Your task to perform on an android device: Open the map Image 0: 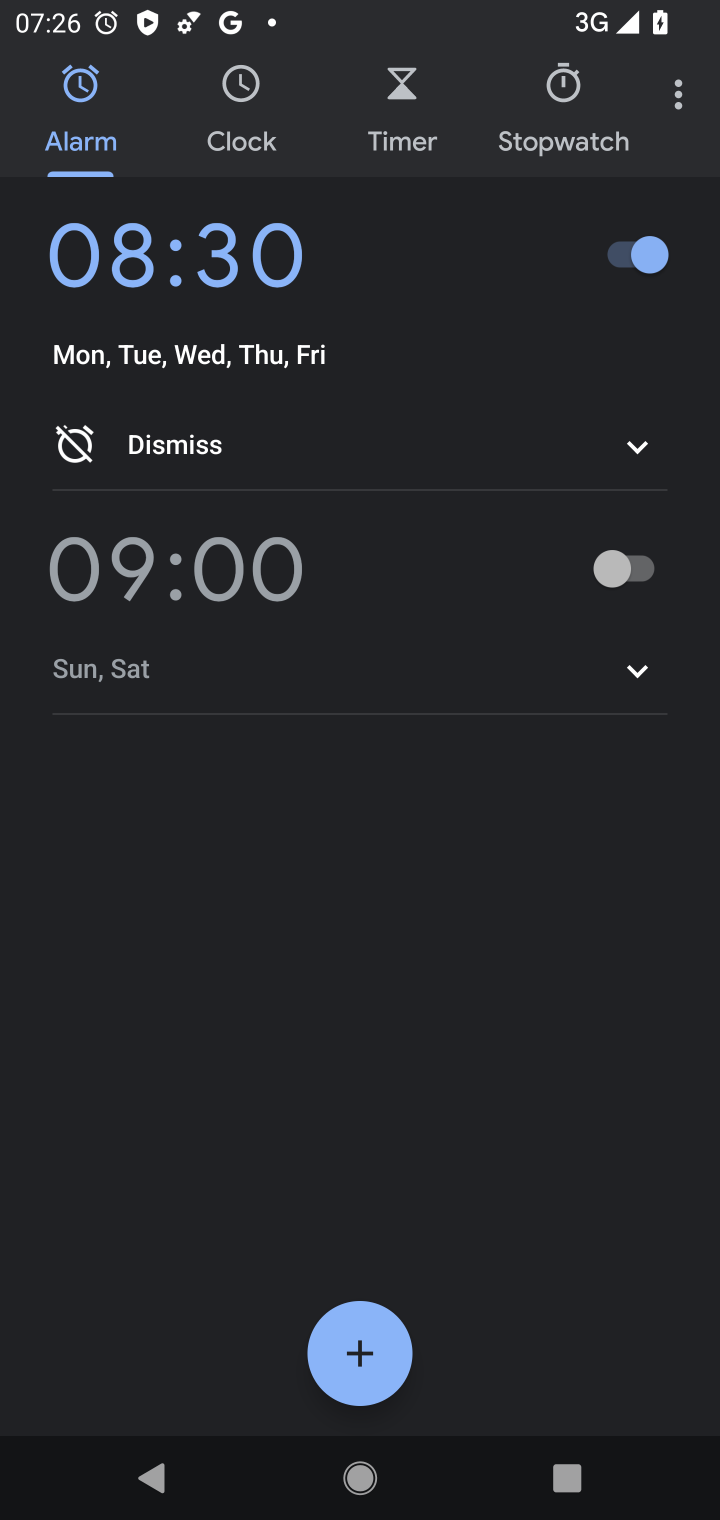
Step 0: press home button
Your task to perform on an android device: Open the map Image 1: 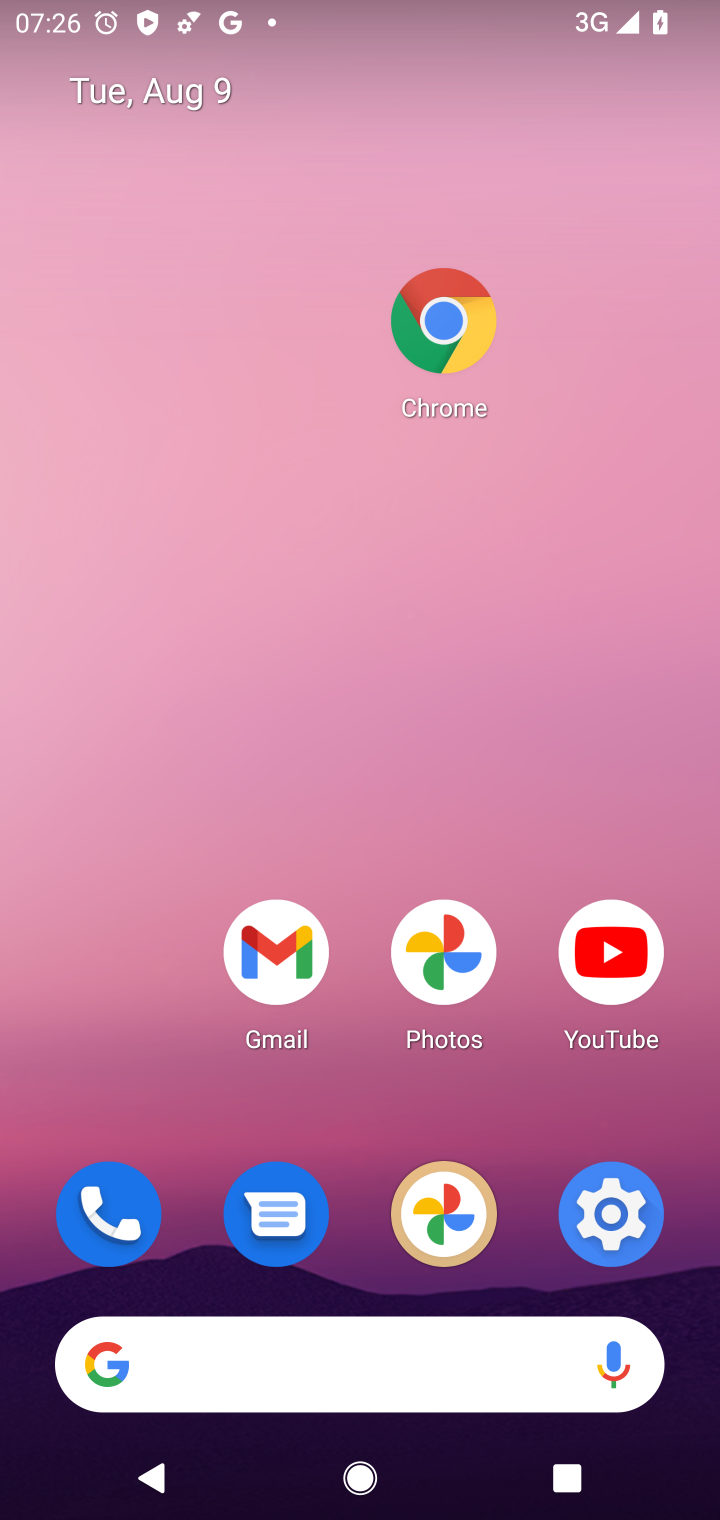
Step 1: drag from (443, 1302) to (395, 542)
Your task to perform on an android device: Open the map Image 2: 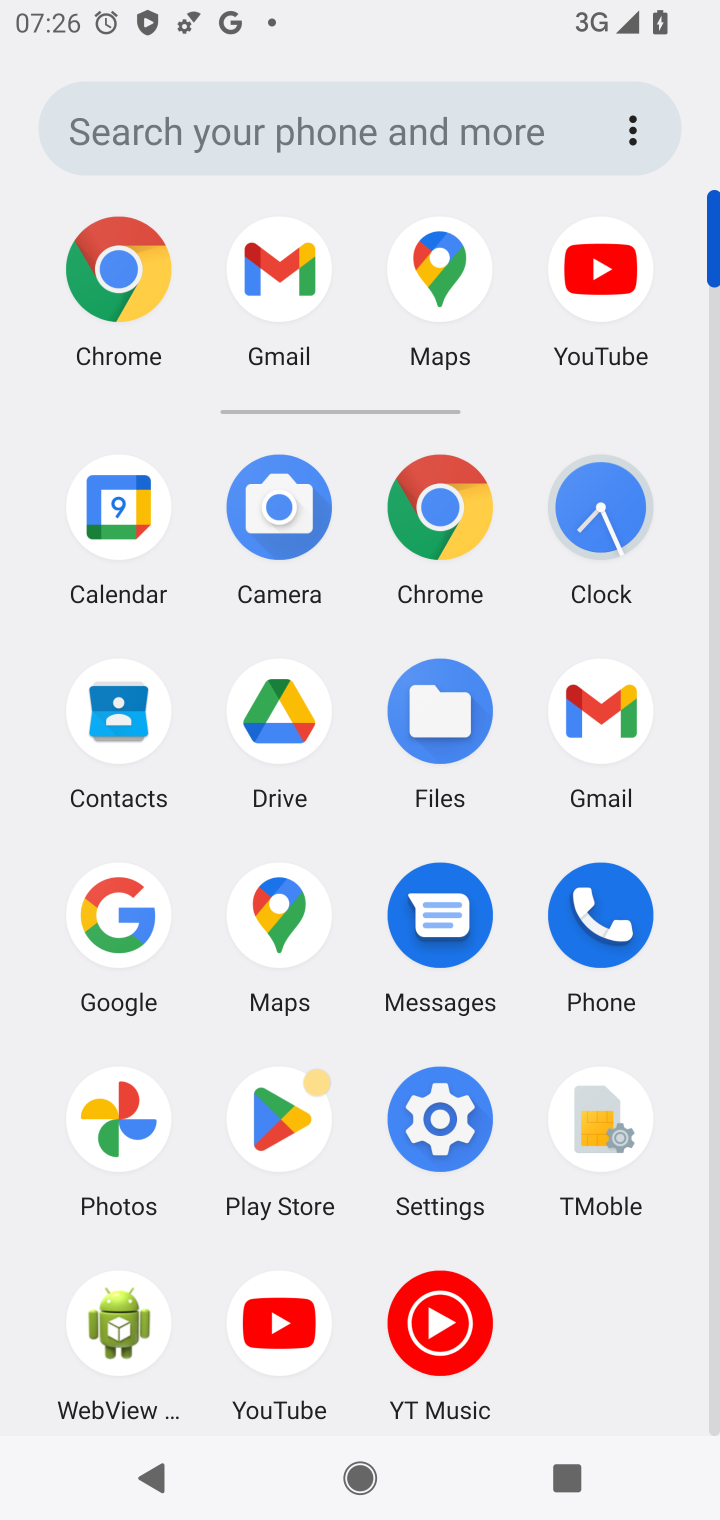
Step 2: click (421, 293)
Your task to perform on an android device: Open the map Image 3: 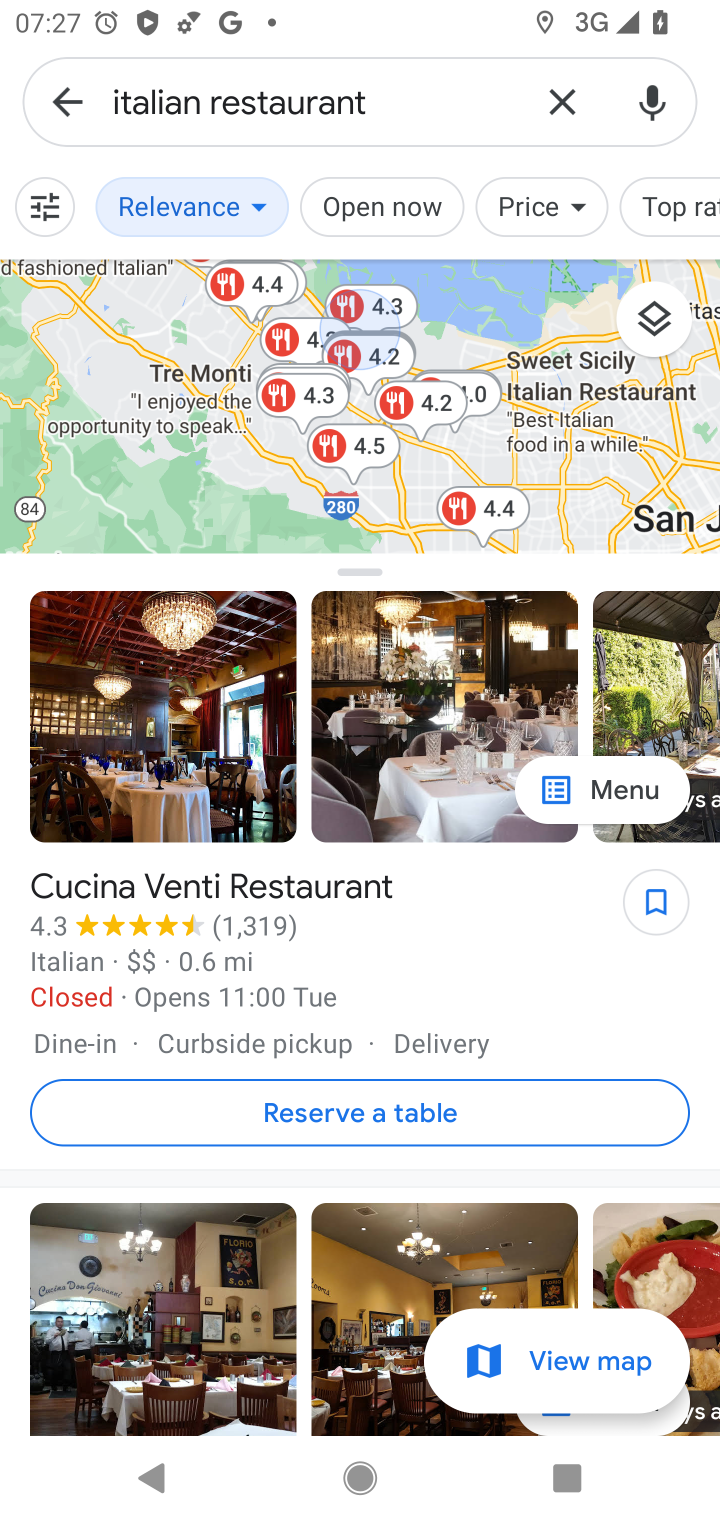
Step 3: click (55, 102)
Your task to perform on an android device: Open the map Image 4: 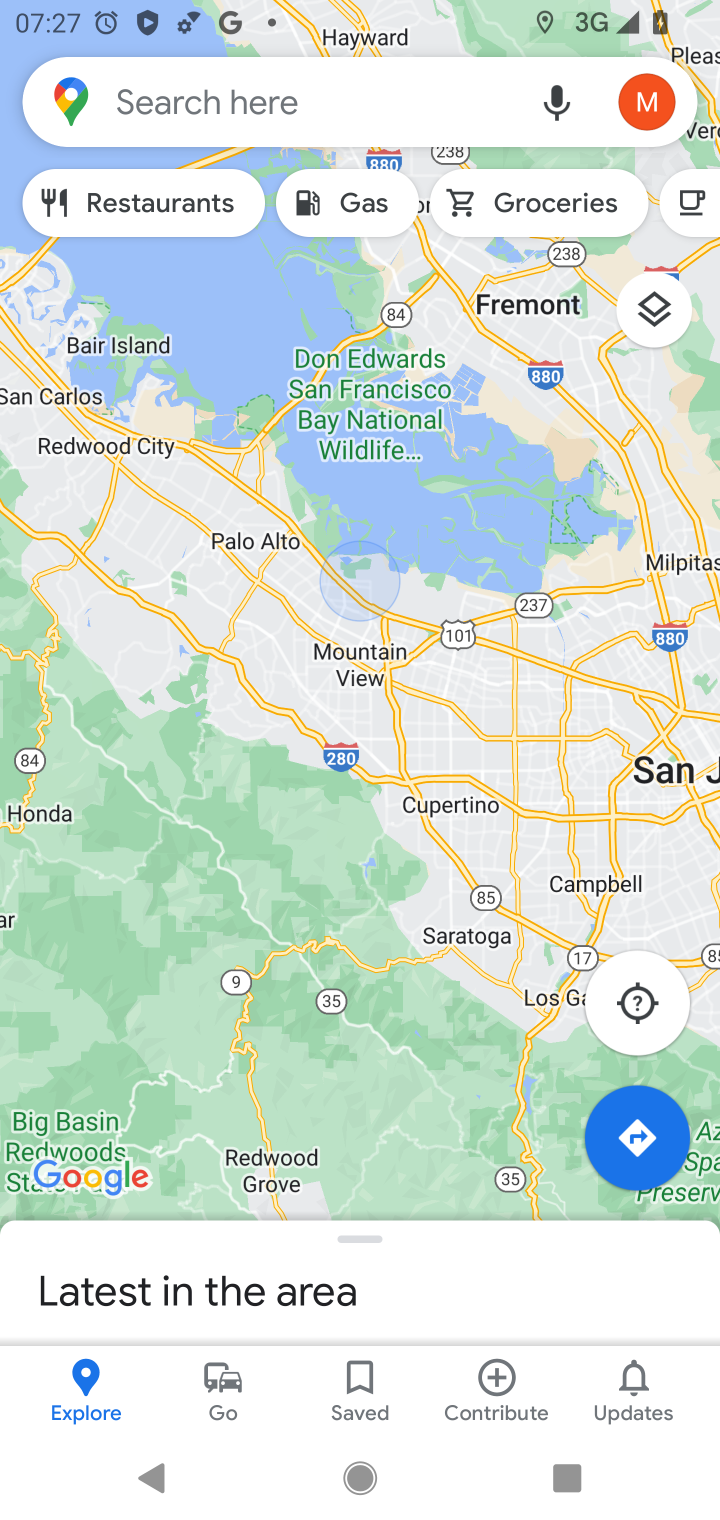
Step 4: task complete